Your task to perform on an android device: change timer sound Image 0: 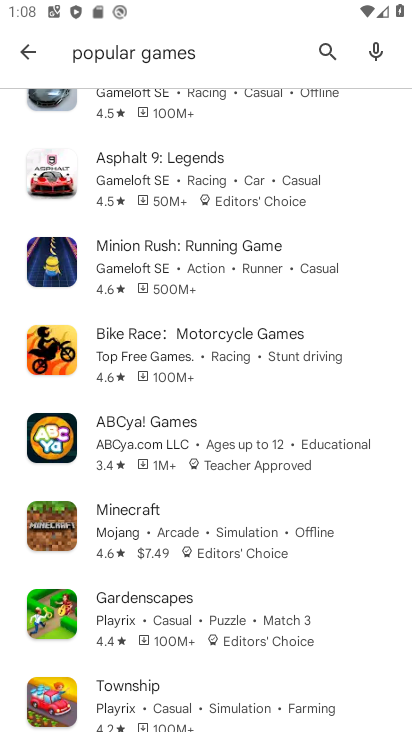
Step 0: press back button
Your task to perform on an android device: change timer sound Image 1: 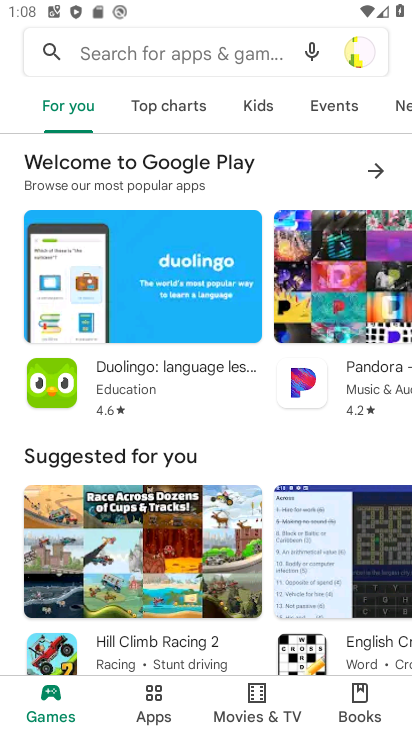
Step 1: press back button
Your task to perform on an android device: change timer sound Image 2: 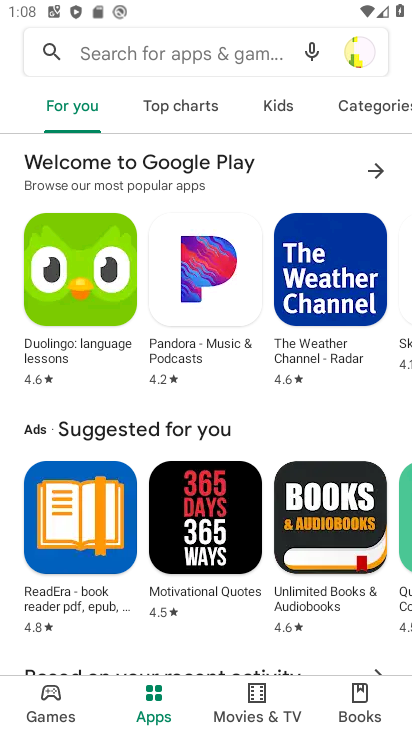
Step 2: press back button
Your task to perform on an android device: change timer sound Image 3: 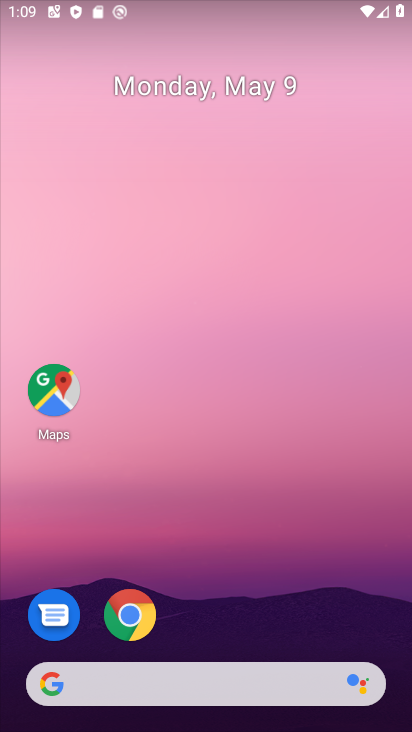
Step 3: drag from (252, 580) to (241, 65)
Your task to perform on an android device: change timer sound Image 4: 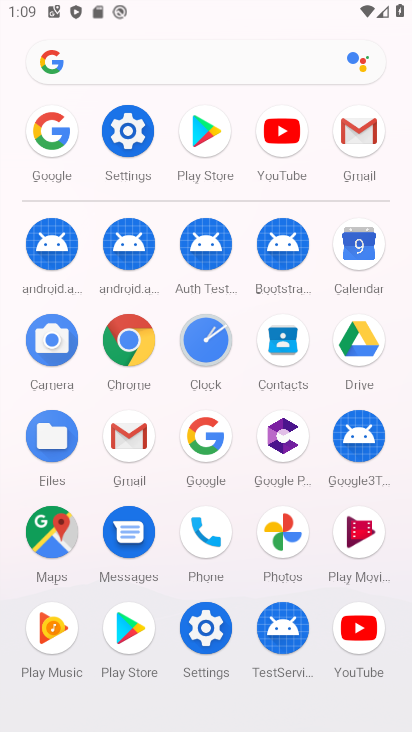
Step 4: click (208, 340)
Your task to perform on an android device: change timer sound Image 5: 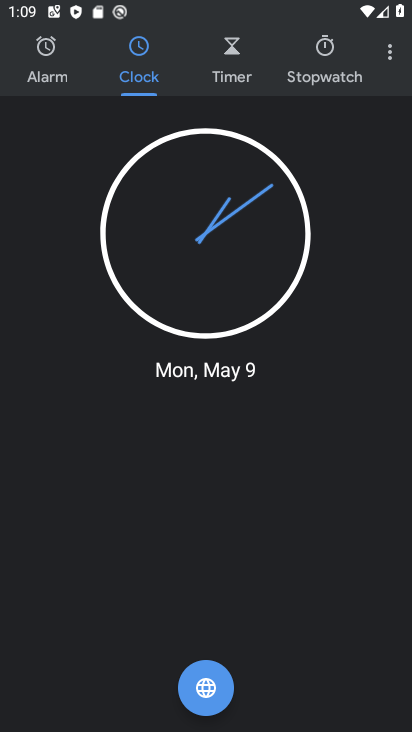
Step 5: click (392, 52)
Your task to perform on an android device: change timer sound Image 6: 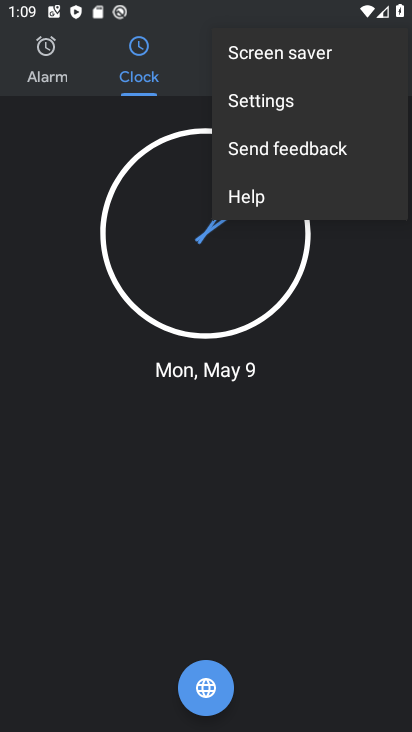
Step 6: click (271, 95)
Your task to perform on an android device: change timer sound Image 7: 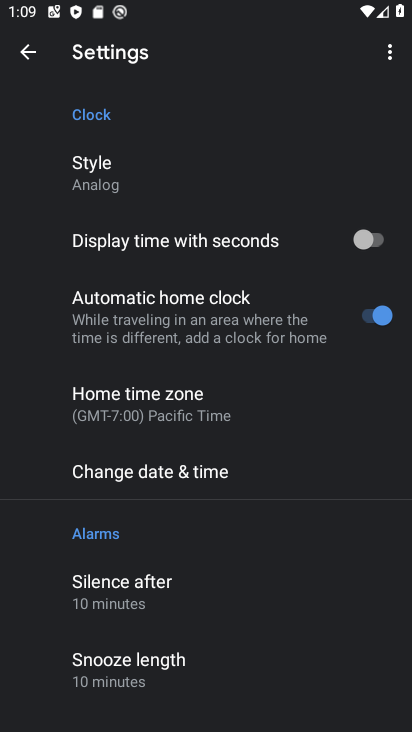
Step 7: drag from (170, 489) to (216, 355)
Your task to perform on an android device: change timer sound Image 8: 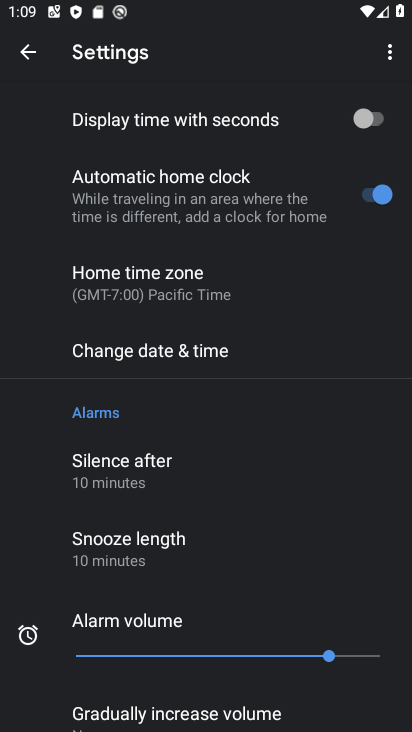
Step 8: drag from (211, 531) to (252, 403)
Your task to perform on an android device: change timer sound Image 9: 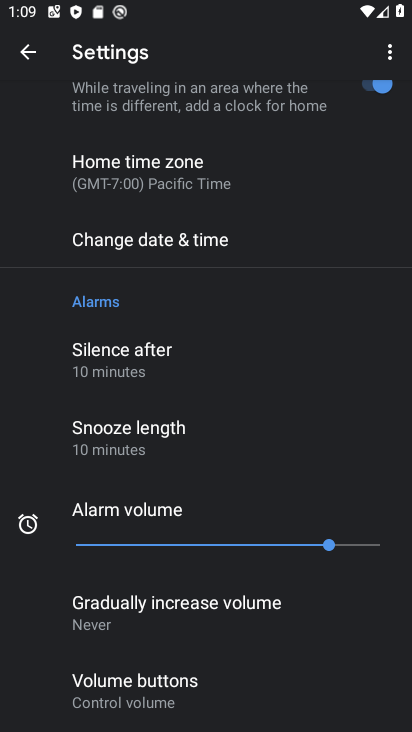
Step 9: drag from (199, 558) to (290, 438)
Your task to perform on an android device: change timer sound Image 10: 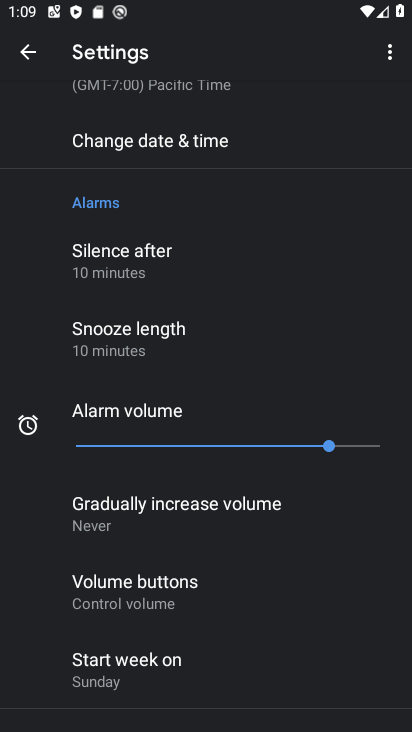
Step 10: drag from (240, 593) to (266, 408)
Your task to perform on an android device: change timer sound Image 11: 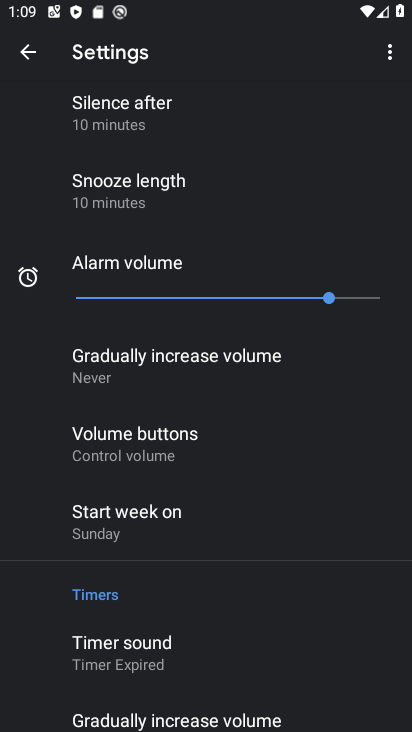
Step 11: drag from (181, 599) to (276, 432)
Your task to perform on an android device: change timer sound Image 12: 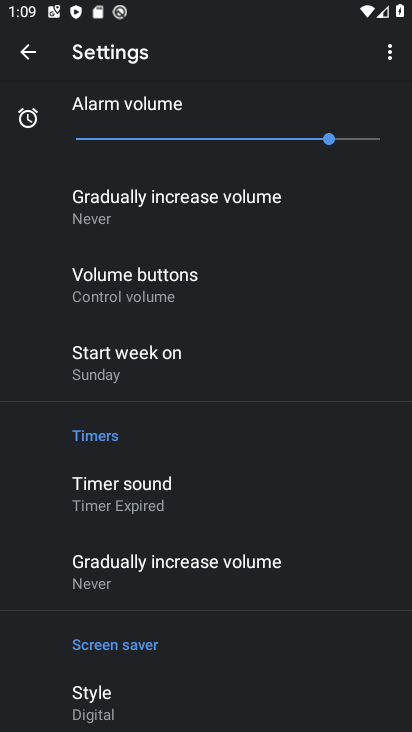
Step 12: click (175, 489)
Your task to perform on an android device: change timer sound Image 13: 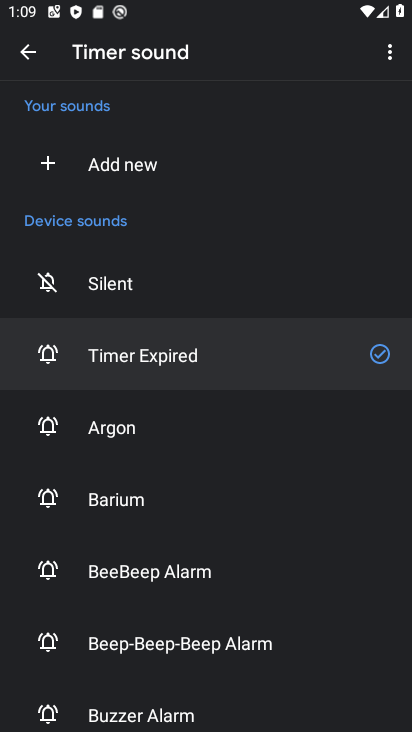
Step 13: click (122, 719)
Your task to perform on an android device: change timer sound Image 14: 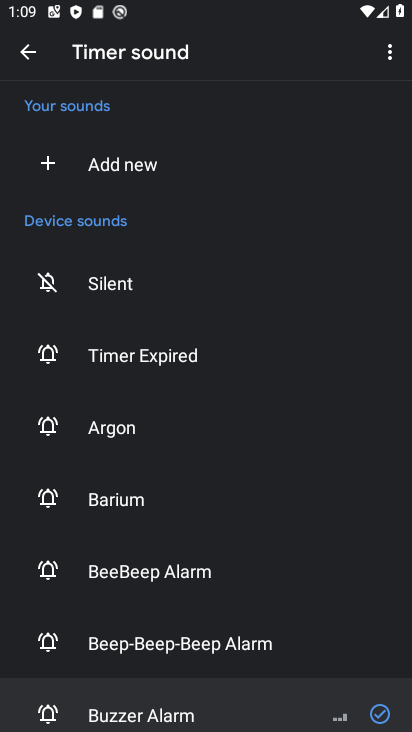
Step 14: task complete